Your task to perform on an android device: Go to CNN.com Image 0: 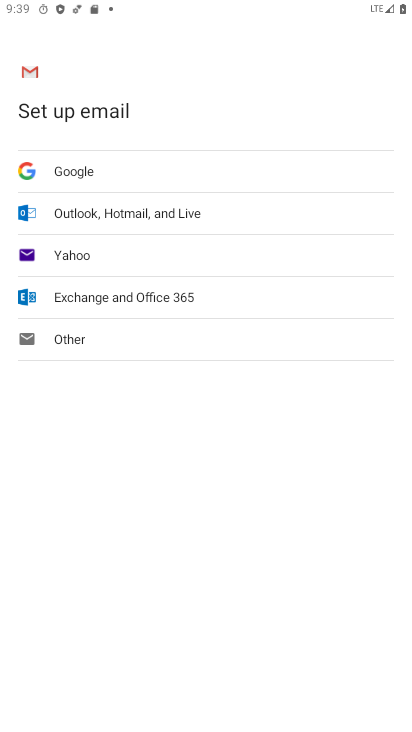
Step 0: press home button
Your task to perform on an android device: Go to CNN.com Image 1: 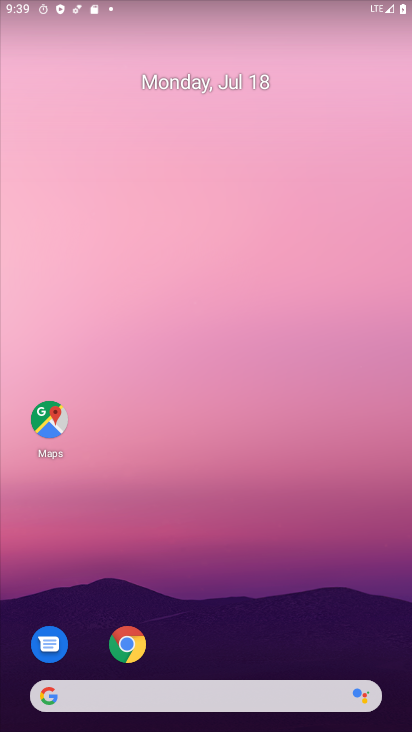
Step 1: drag from (214, 659) to (154, 51)
Your task to perform on an android device: Go to CNN.com Image 2: 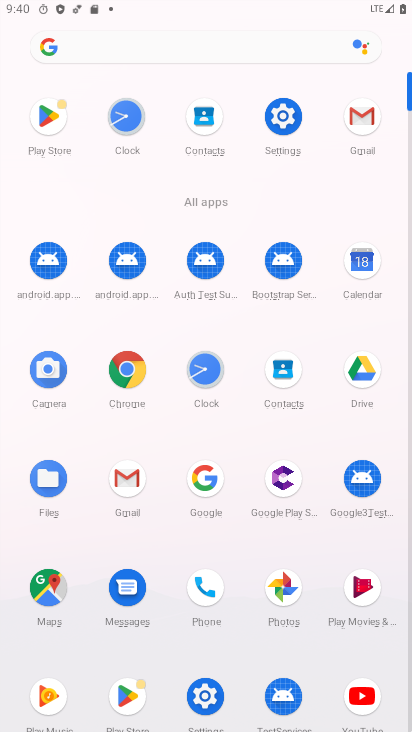
Step 2: click (125, 367)
Your task to perform on an android device: Go to CNN.com Image 3: 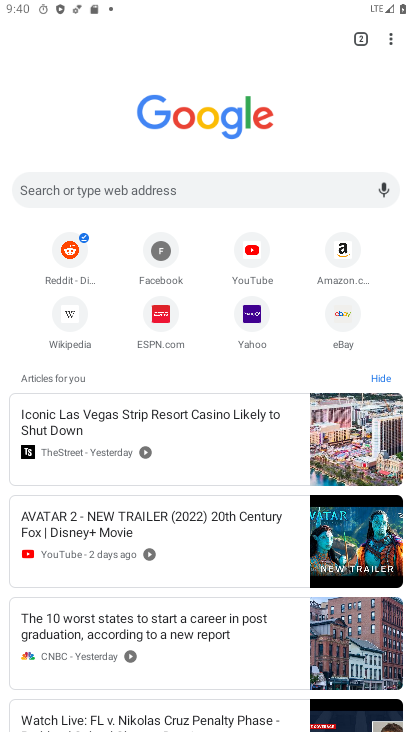
Step 3: click (79, 190)
Your task to perform on an android device: Go to CNN.com Image 4: 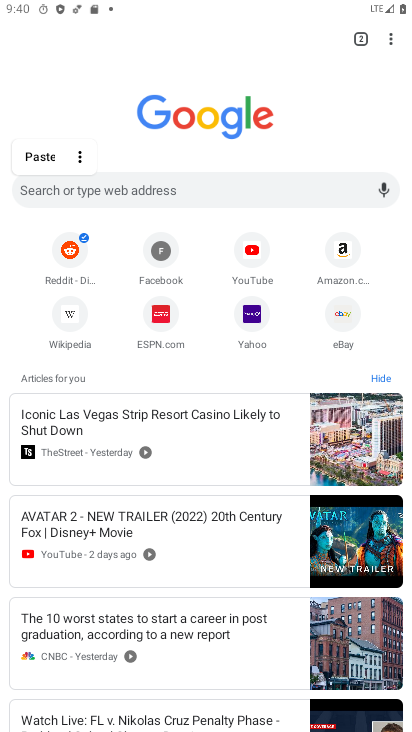
Step 4: type "cnn.com"
Your task to perform on an android device: Go to CNN.com Image 5: 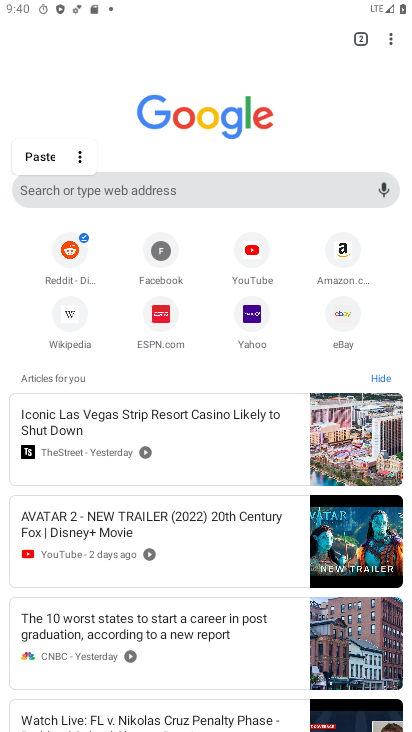
Step 5: click (102, 199)
Your task to perform on an android device: Go to CNN.com Image 6: 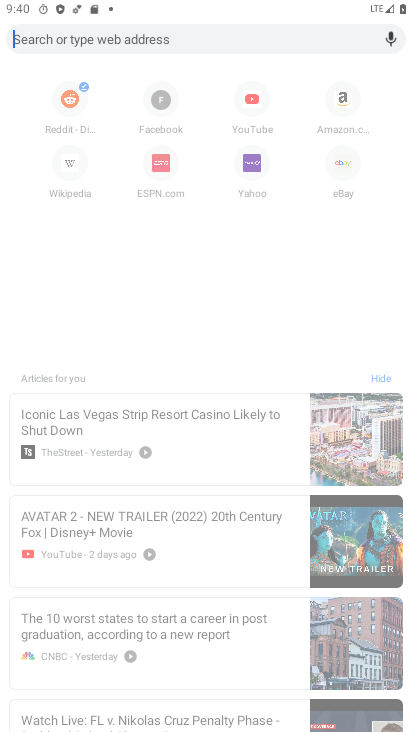
Step 6: click (101, 187)
Your task to perform on an android device: Go to CNN.com Image 7: 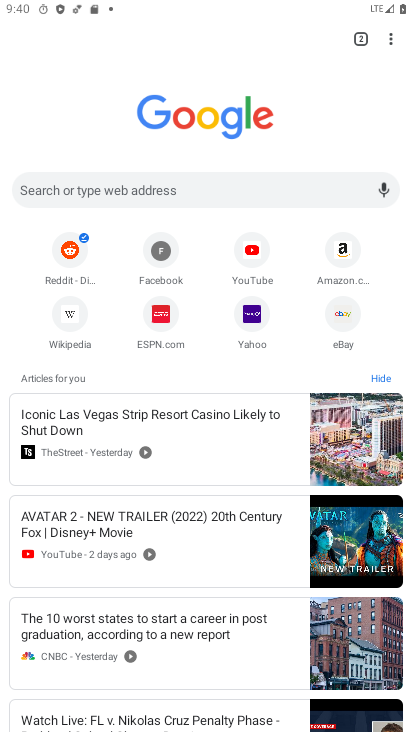
Step 7: click (87, 192)
Your task to perform on an android device: Go to CNN.com Image 8: 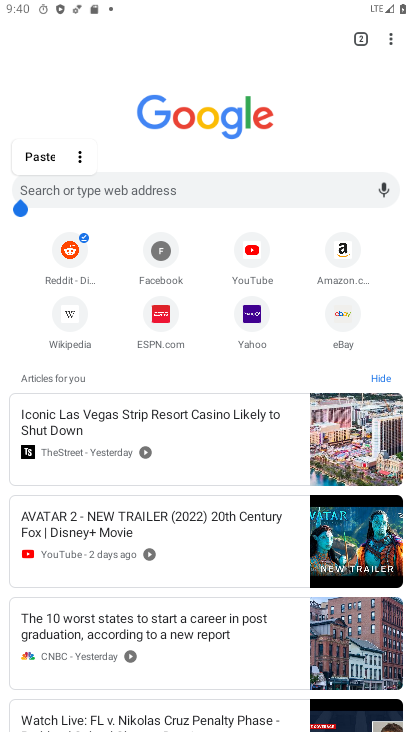
Step 8: click (76, 194)
Your task to perform on an android device: Go to CNN.com Image 9: 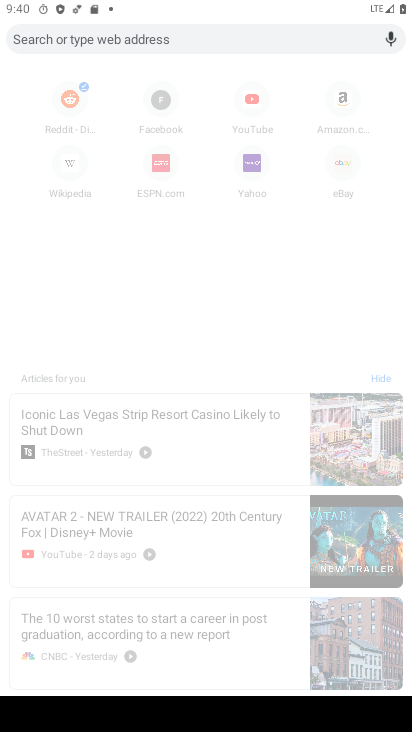
Step 9: type "cnn.com"
Your task to perform on an android device: Go to CNN.com Image 10: 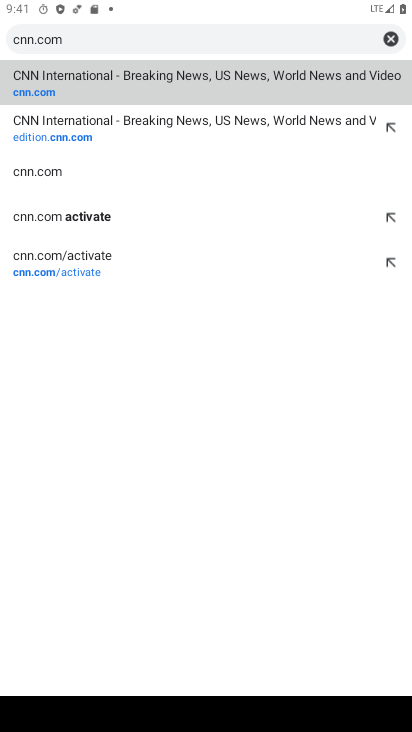
Step 10: click (81, 80)
Your task to perform on an android device: Go to CNN.com Image 11: 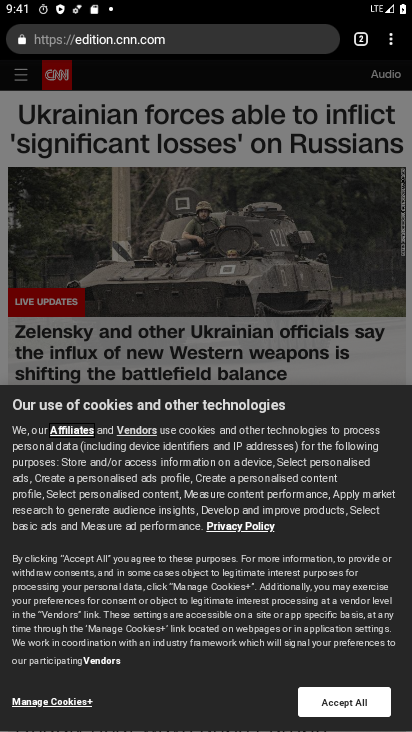
Step 11: click (347, 700)
Your task to perform on an android device: Go to CNN.com Image 12: 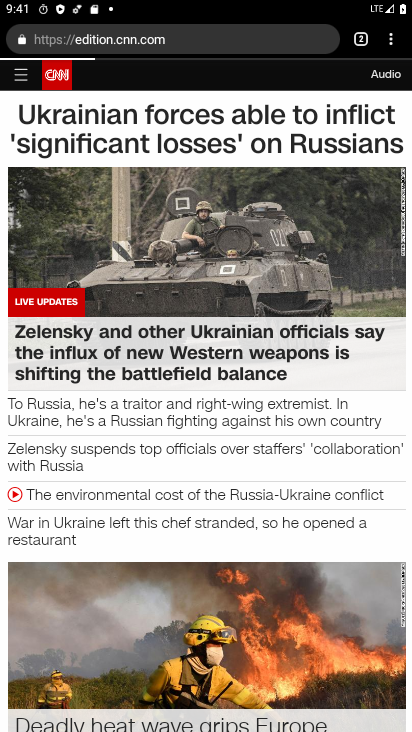
Step 12: task complete